Your task to perform on an android device: see tabs open on other devices in the chrome app Image 0: 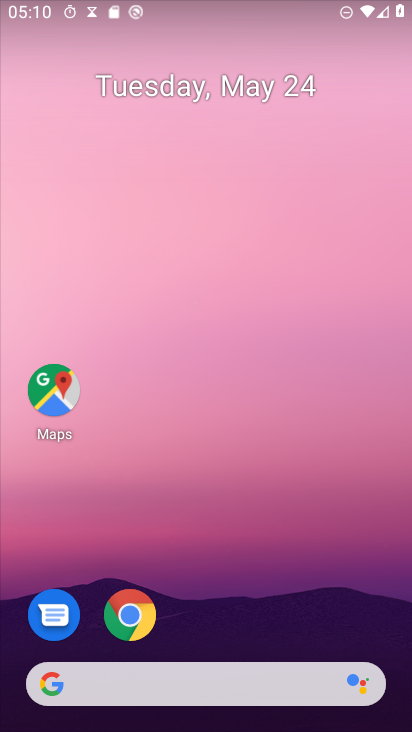
Step 0: click (113, 619)
Your task to perform on an android device: see tabs open on other devices in the chrome app Image 1: 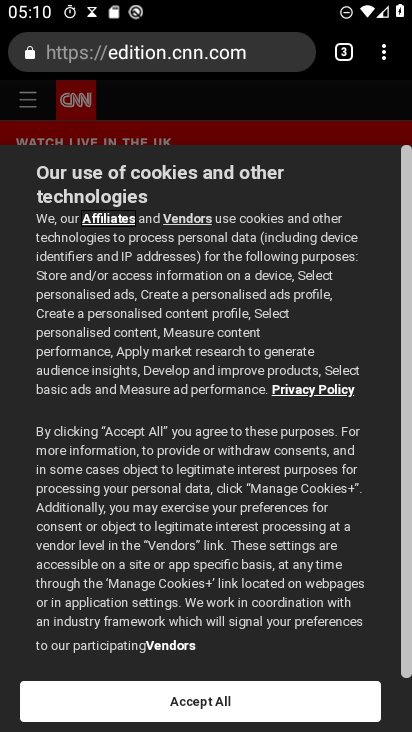
Step 1: task complete